Your task to perform on an android device: Open Google Image 0: 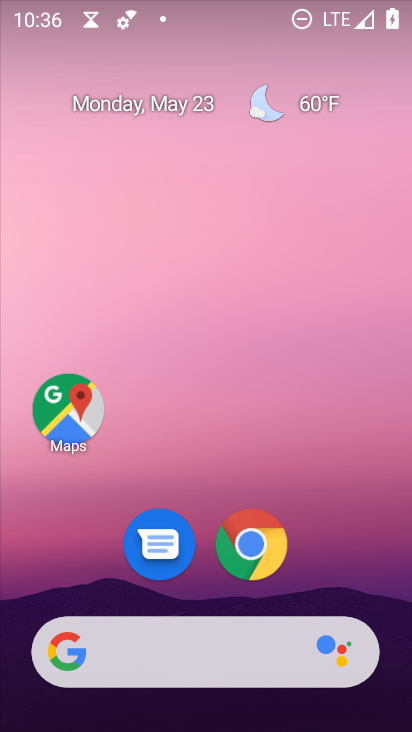
Step 0: drag from (314, 500) to (139, 206)
Your task to perform on an android device: Open Google Image 1: 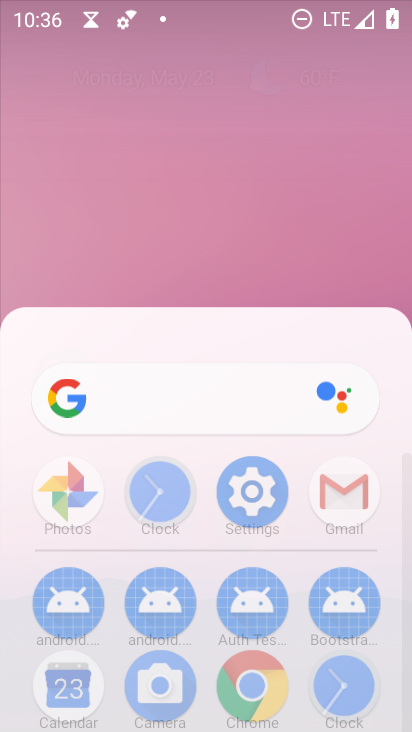
Step 1: click (108, 98)
Your task to perform on an android device: Open Google Image 2: 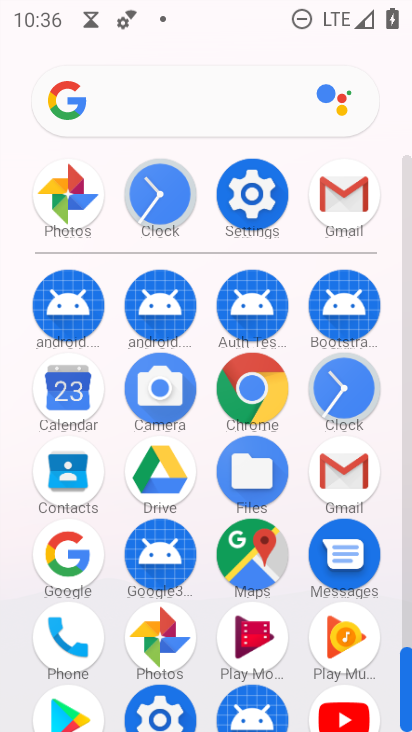
Step 2: click (69, 554)
Your task to perform on an android device: Open Google Image 3: 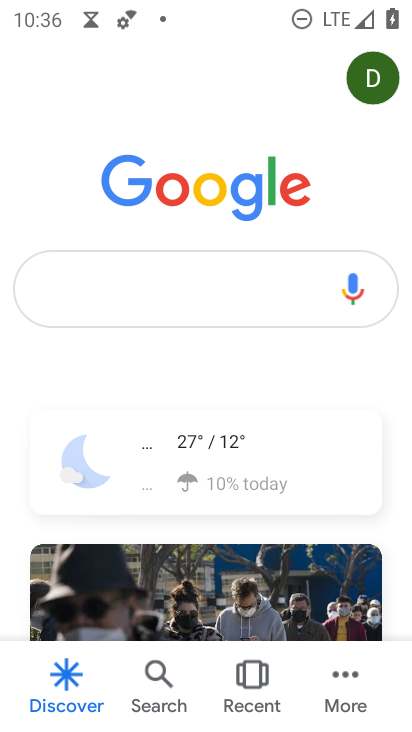
Step 3: task complete